Your task to perform on an android device: Go to Amazon Image 0: 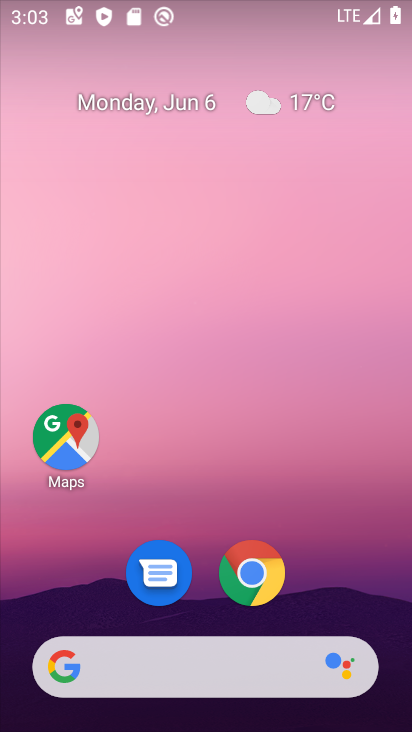
Step 0: drag from (381, 611) to (381, 257)
Your task to perform on an android device: Go to Amazon Image 1: 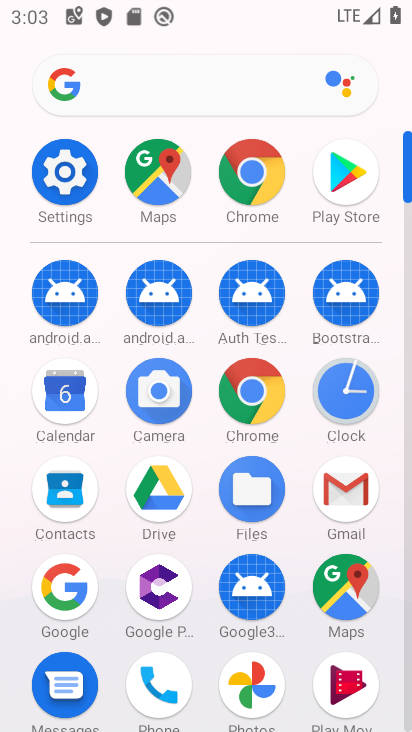
Step 1: click (272, 400)
Your task to perform on an android device: Go to Amazon Image 2: 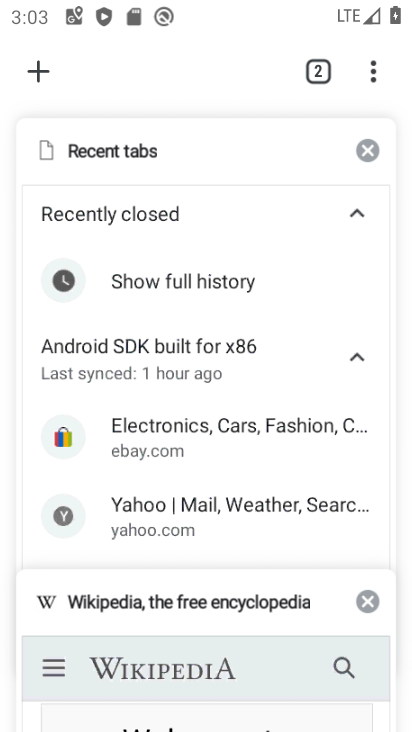
Step 2: press back button
Your task to perform on an android device: Go to Amazon Image 3: 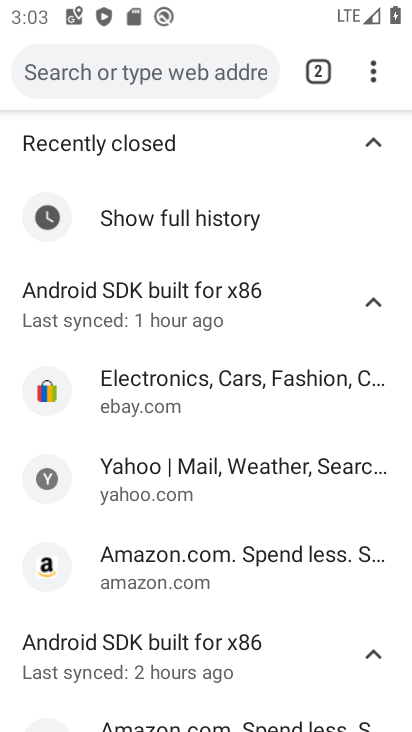
Step 3: click (218, 89)
Your task to perform on an android device: Go to Amazon Image 4: 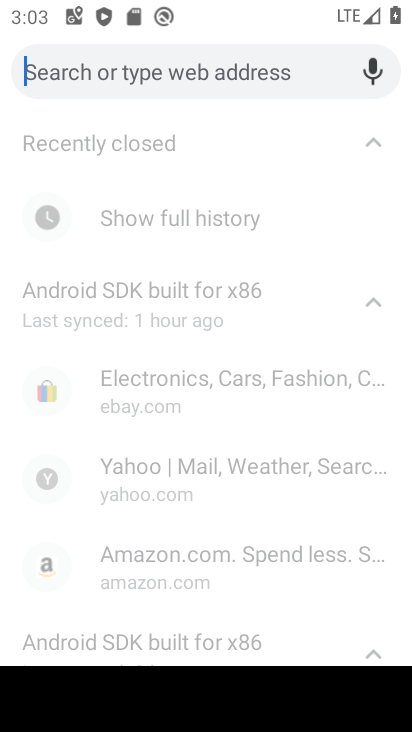
Step 4: type "amazon"
Your task to perform on an android device: Go to Amazon Image 5: 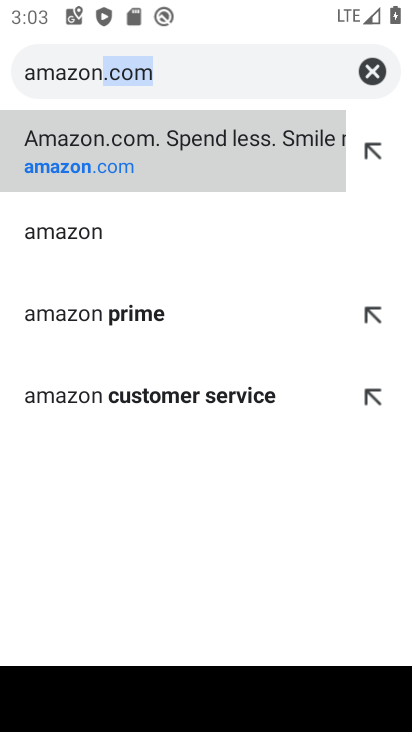
Step 5: click (178, 154)
Your task to perform on an android device: Go to Amazon Image 6: 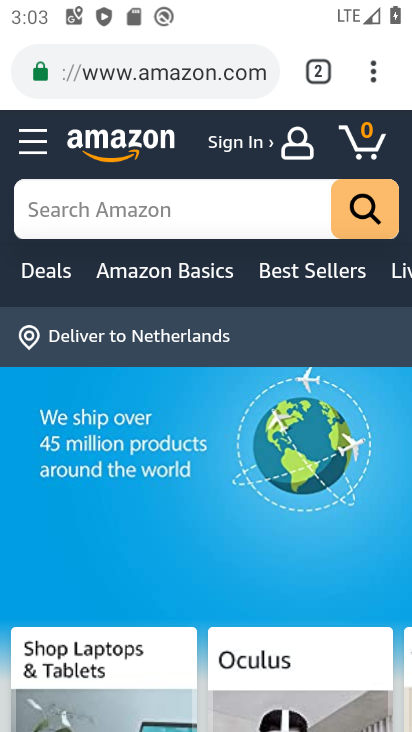
Step 6: task complete